Your task to perform on an android device: Open privacy settings Image 0: 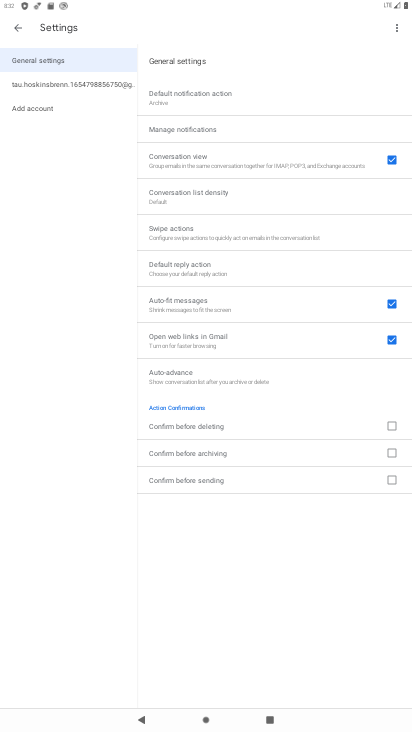
Step 0: press home button
Your task to perform on an android device: Open privacy settings Image 1: 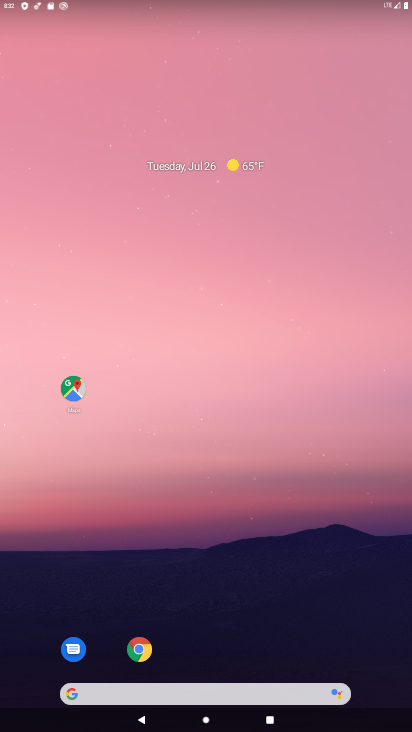
Step 1: drag from (187, 688) to (400, 182)
Your task to perform on an android device: Open privacy settings Image 2: 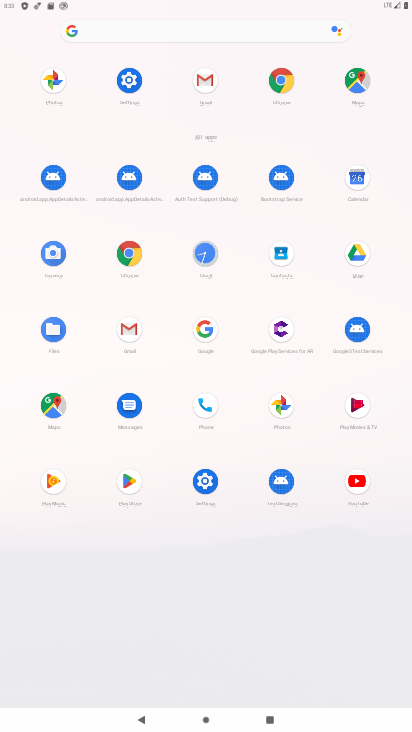
Step 2: click (128, 79)
Your task to perform on an android device: Open privacy settings Image 3: 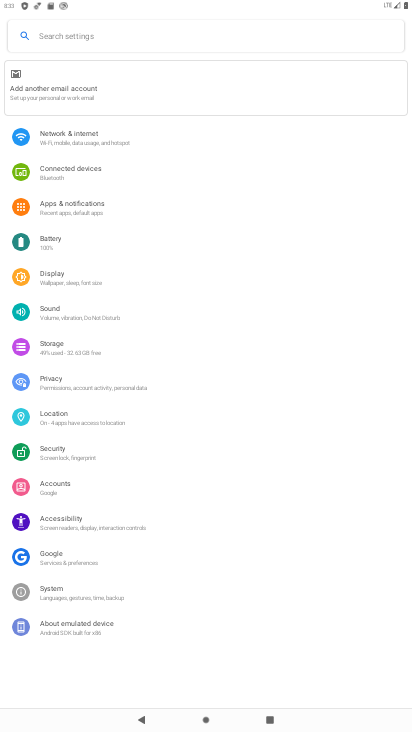
Step 3: click (52, 381)
Your task to perform on an android device: Open privacy settings Image 4: 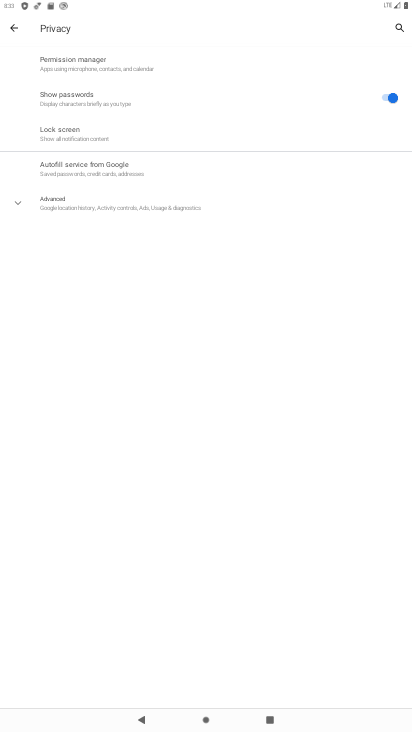
Step 4: task complete